Your task to perform on an android device: Turn off the flashlight Image 0: 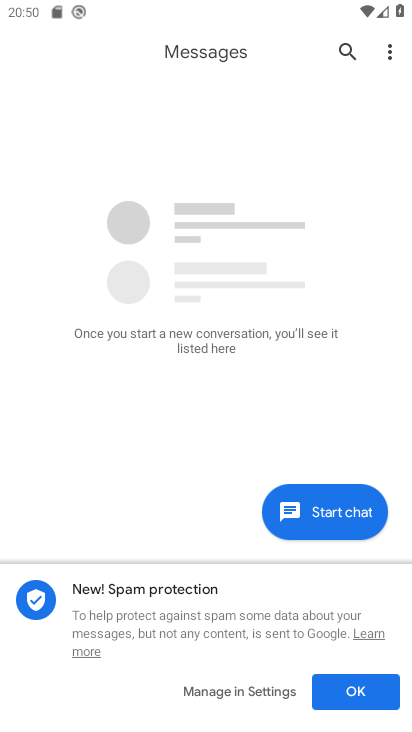
Step 0: press home button
Your task to perform on an android device: Turn off the flashlight Image 1: 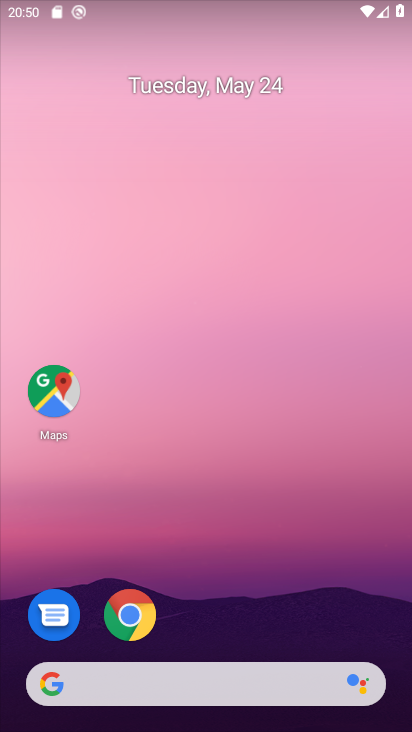
Step 1: drag from (212, 548) to (251, 251)
Your task to perform on an android device: Turn off the flashlight Image 2: 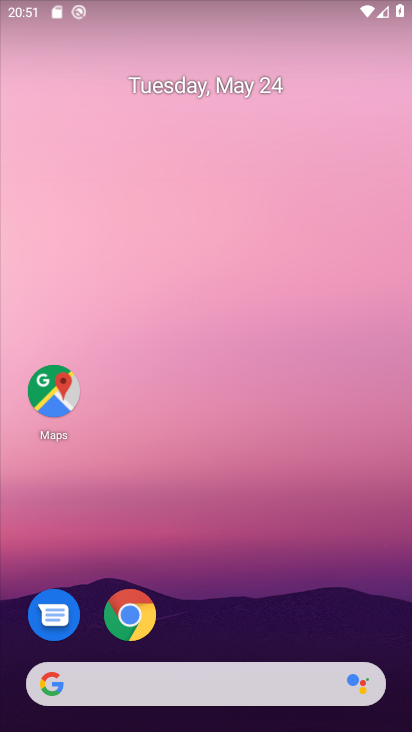
Step 2: drag from (204, 617) to (232, 315)
Your task to perform on an android device: Turn off the flashlight Image 3: 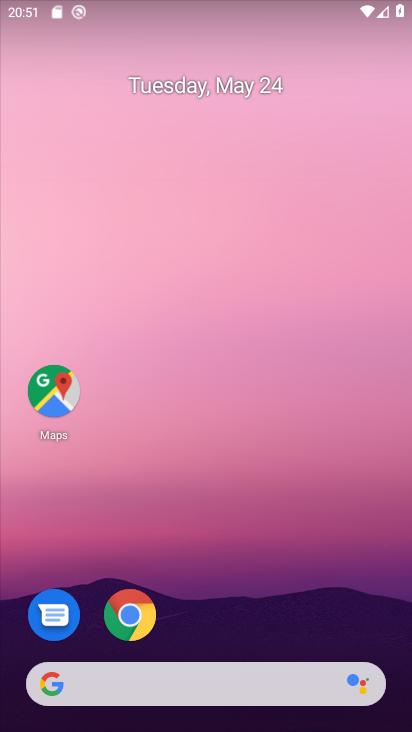
Step 3: drag from (220, 588) to (252, 259)
Your task to perform on an android device: Turn off the flashlight Image 4: 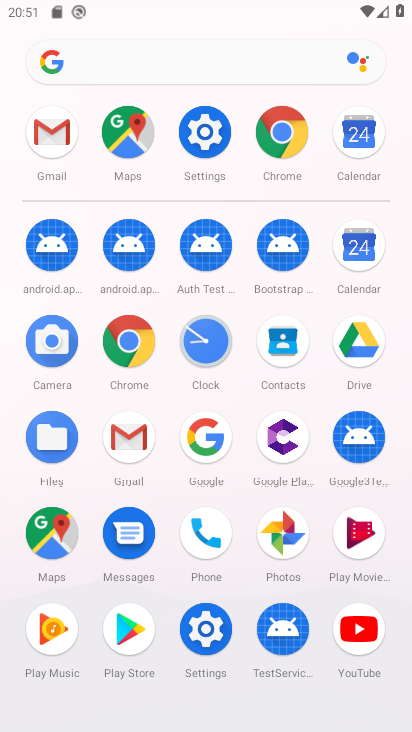
Step 4: click (194, 131)
Your task to perform on an android device: Turn off the flashlight Image 5: 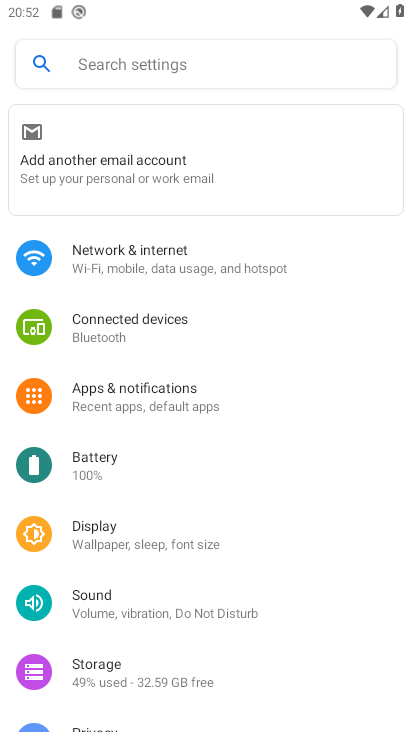
Step 5: task complete